Your task to perform on an android device: Set the phone to "Do not disturb". Image 0: 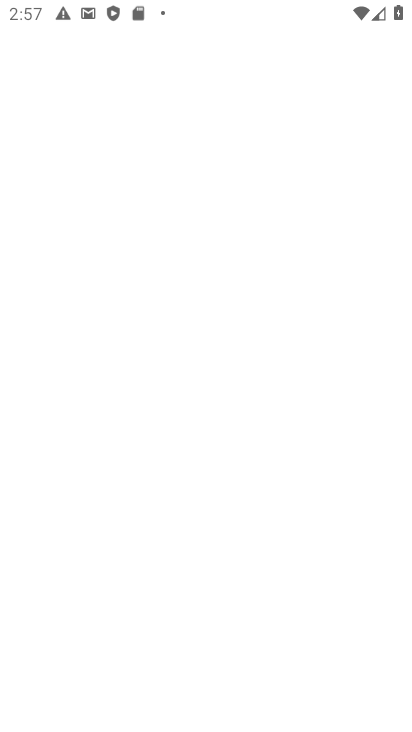
Step 0: press home button
Your task to perform on an android device: Set the phone to "Do not disturb". Image 1: 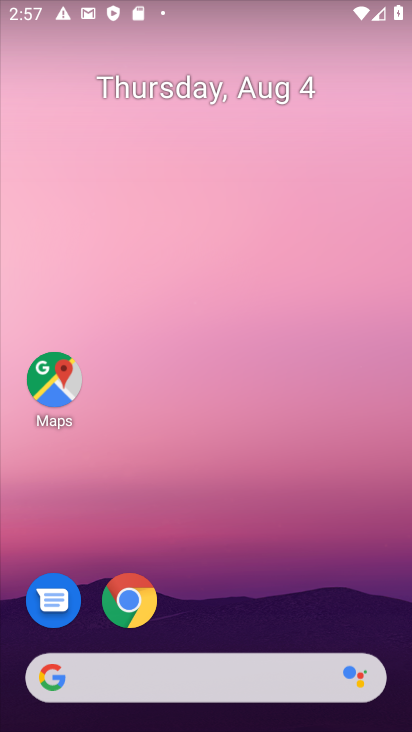
Step 1: drag from (169, 668) to (302, 55)
Your task to perform on an android device: Set the phone to "Do not disturb". Image 2: 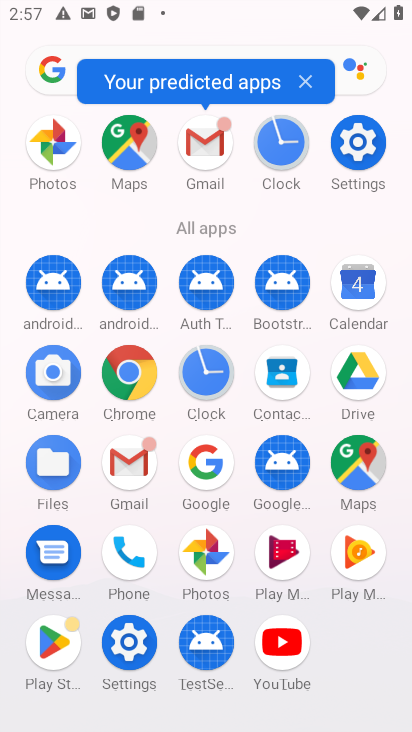
Step 2: click (355, 148)
Your task to perform on an android device: Set the phone to "Do not disturb". Image 3: 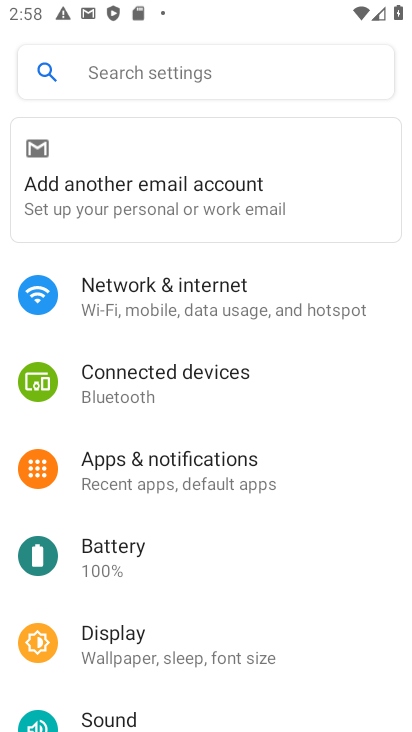
Step 3: drag from (217, 591) to (347, 166)
Your task to perform on an android device: Set the phone to "Do not disturb". Image 4: 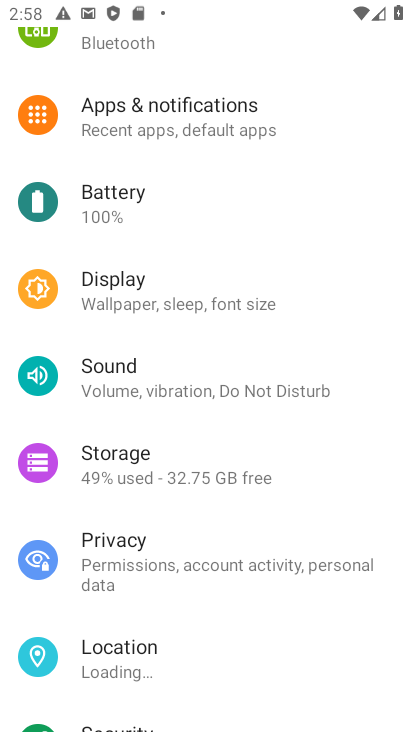
Step 4: click (144, 389)
Your task to perform on an android device: Set the phone to "Do not disturb". Image 5: 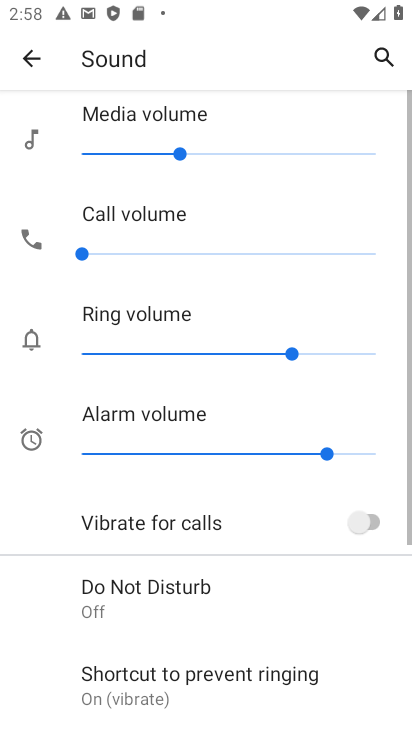
Step 5: drag from (224, 582) to (299, 204)
Your task to perform on an android device: Set the phone to "Do not disturb". Image 6: 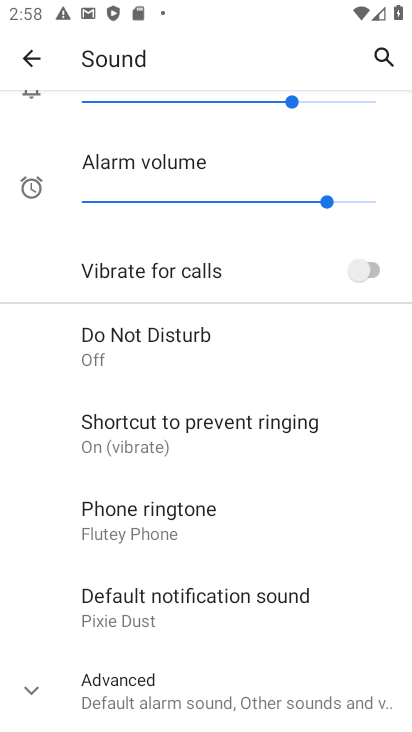
Step 6: click (169, 340)
Your task to perform on an android device: Set the phone to "Do not disturb". Image 7: 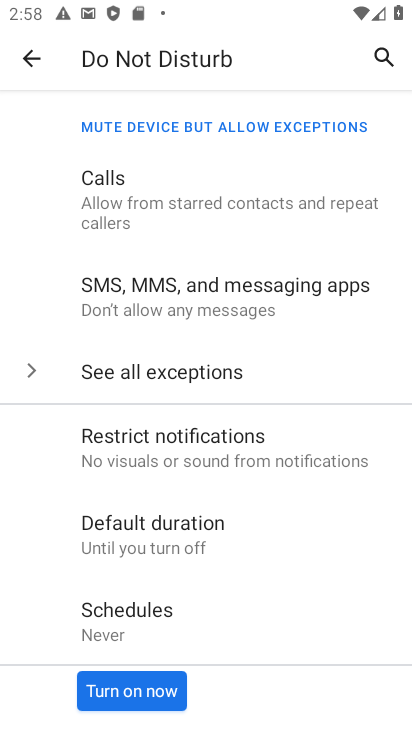
Step 7: click (133, 694)
Your task to perform on an android device: Set the phone to "Do not disturb". Image 8: 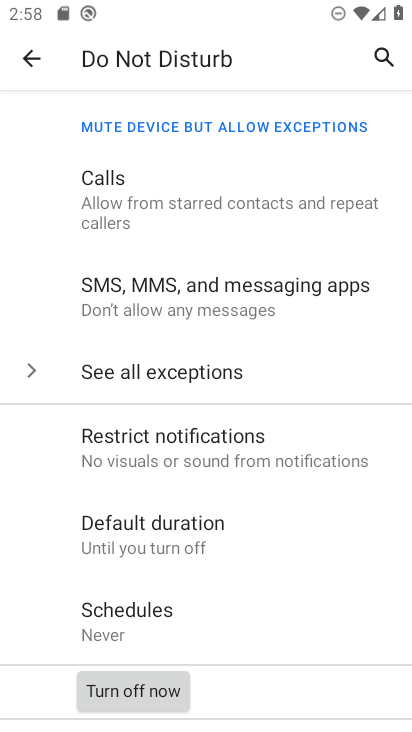
Step 8: task complete